Your task to perform on an android device: open a bookmark in the chrome app Image 0: 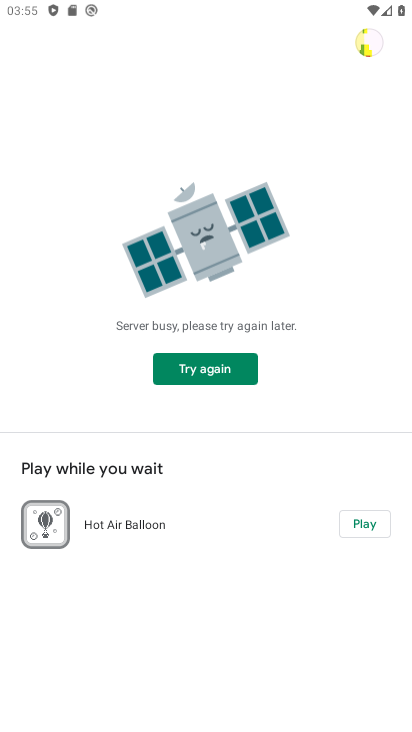
Step 0: press home button
Your task to perform on an android device: open a bookmark in the chrome app Image 1: 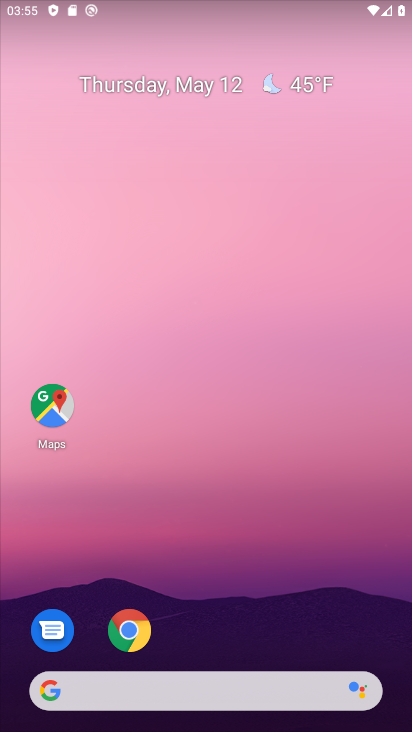
Step 1: click (119, 633)
Your task to perform on an android device: open a bookmark in the chrome app Image 2: 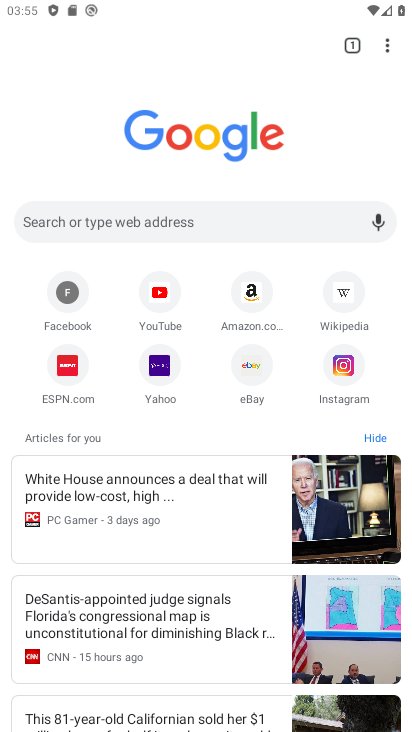
Step 2: click (386, 52)
Your task to perform on an android device: open a bookmark in the chrome app Image 3: 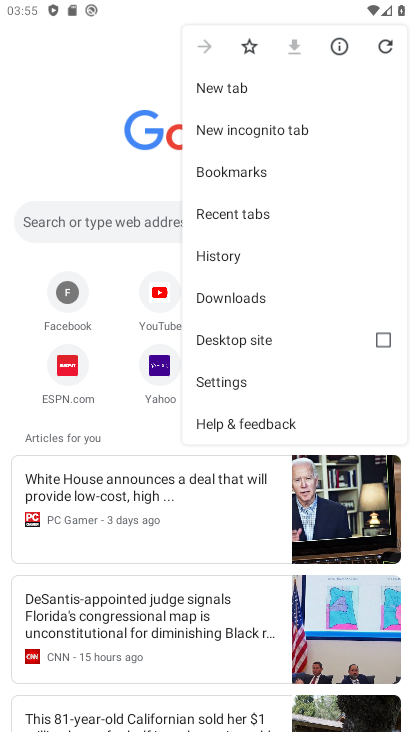
Step 3: click (57, 387)
Your task to perform on an android device: open a bookmark in the chrome app Image 4: 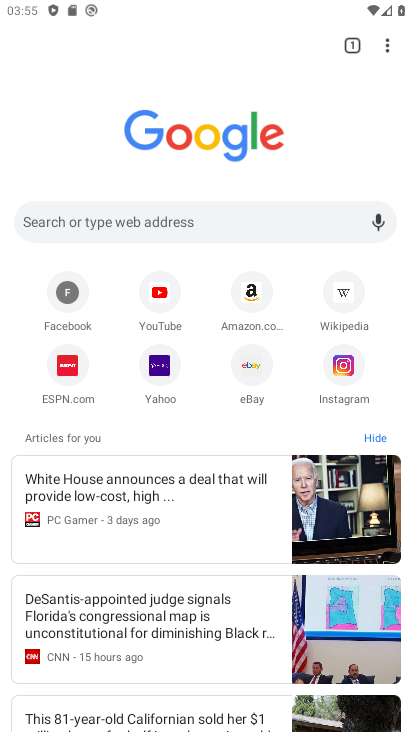
Step 4: click (57, 387)
Your task to perform on an android device: open a bookmark in the chrome app Image 5: 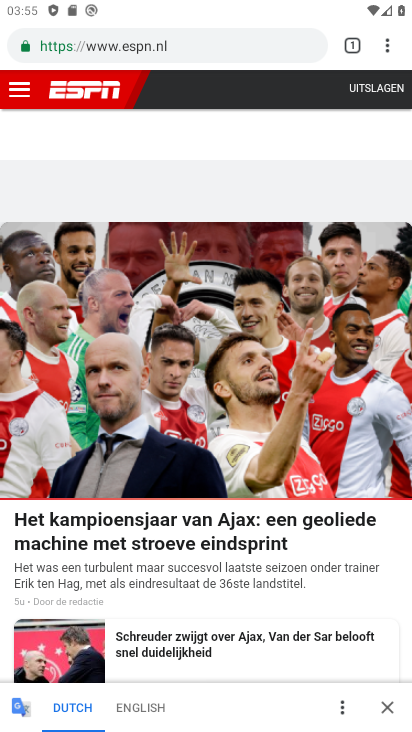
Step 5: task complete